Your task to perform on an android device: toggle improve location accuracy Image 0: 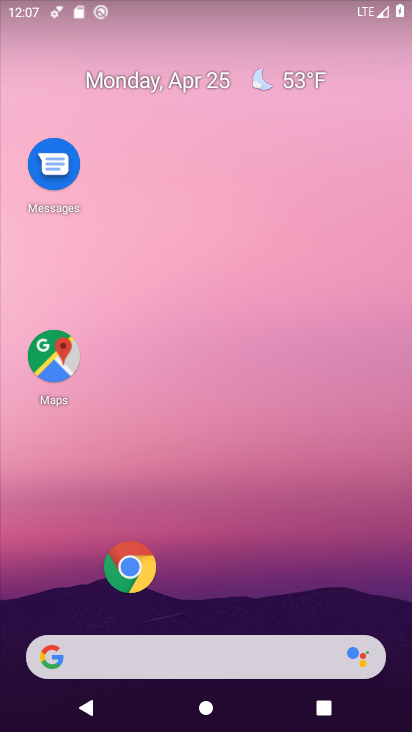
Step 0: drag from (262, 577) to (335, 129)
Your task to perform on an android device: toggle improve location accuracy Image 1: 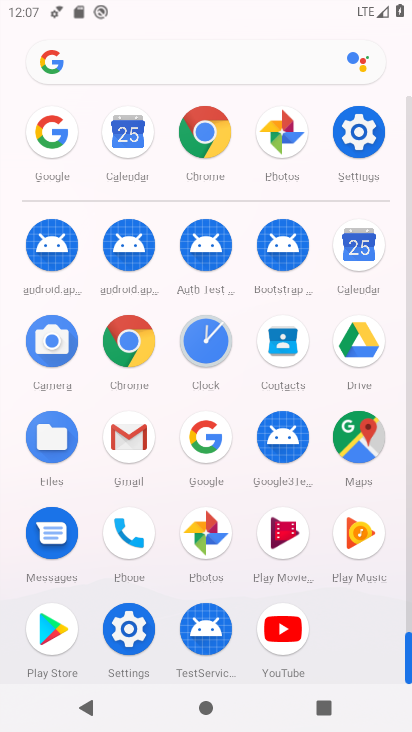
Step 1: click (371, 156)
Your task to perform on an android device: toggle improve location accuracy Image 2: 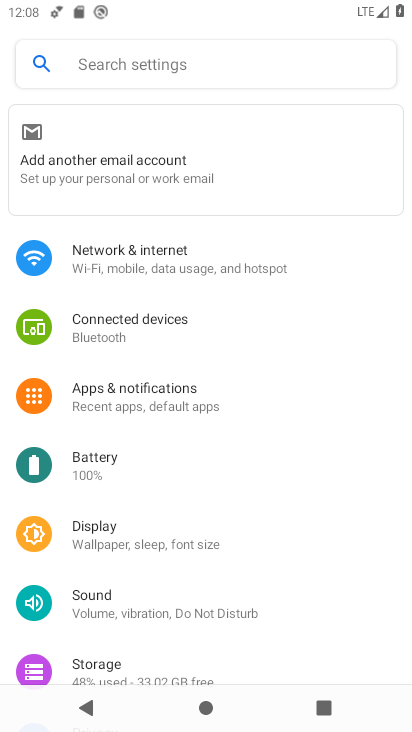
Step 2: drag from (160, 559) to (211, 256)
Your task to perform on an android device: toggle improve location accuracy Image 3: 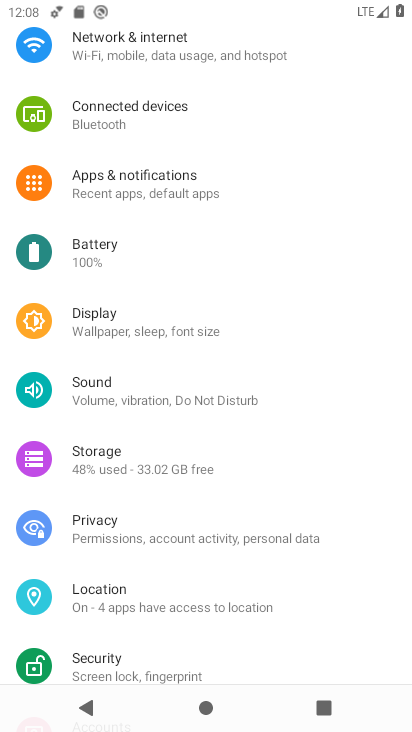
Step 3: click (170, 606)
Your task to perform on an android device: toggle improve location accuracy Image 4: 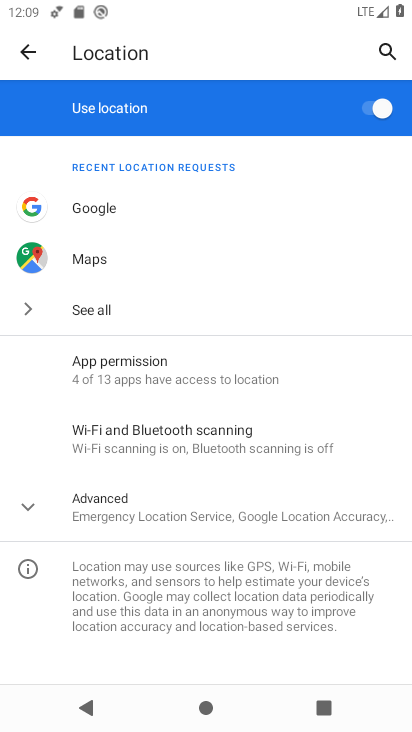
Step 4: click (158, 510)
Your task to perform on an android device: toggle improve location accuracy Image 5: 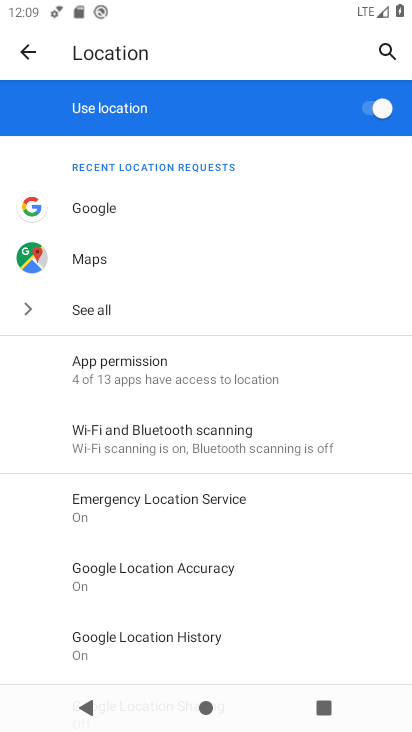
Step 5: click (252, 557)
Your task to perform on an android device: toggle improve location accuracy Image 6: 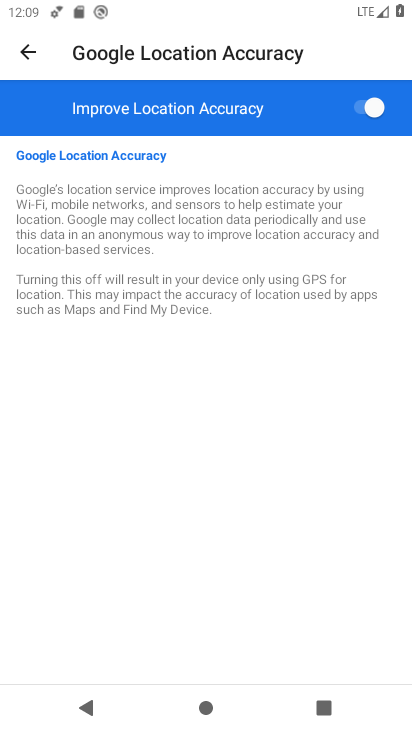
Step 6: click (366, 111)
Your task to perform on an android device: toggle improve location accuracy Image 7: 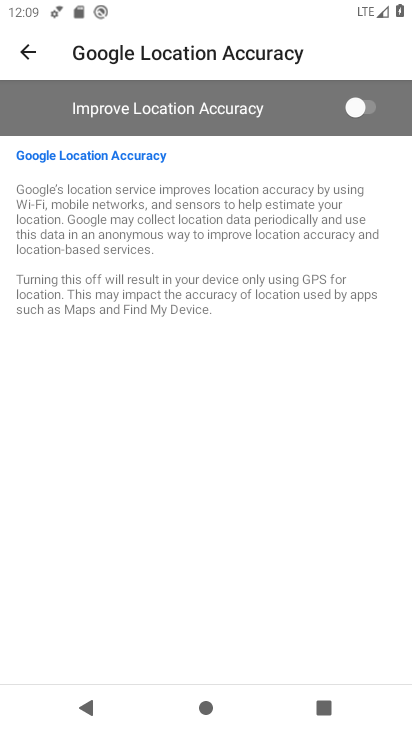
Step 7: task complete